Your task to perform on an android device: Open maps Image 0: 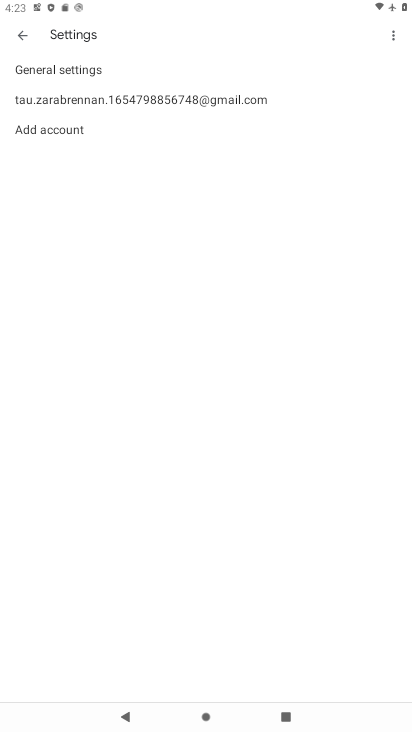
Step 0: press home button
Your task to perform on an android device: Open maps Image 1: 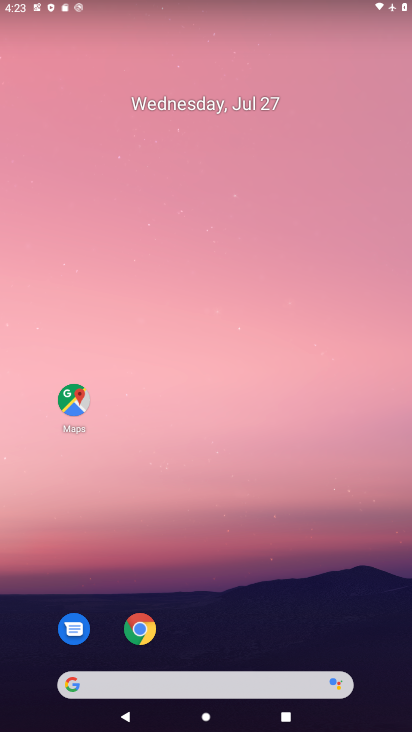
Step 1: click (90, 400)
Your task to perform on an android device: Open maps Image 2: 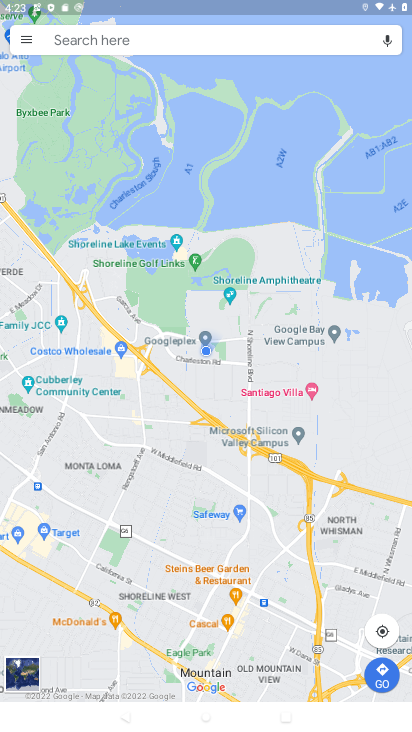
Step 2: task complete